Your task to perform on an android device: turn off notifications in google photos Image 0: 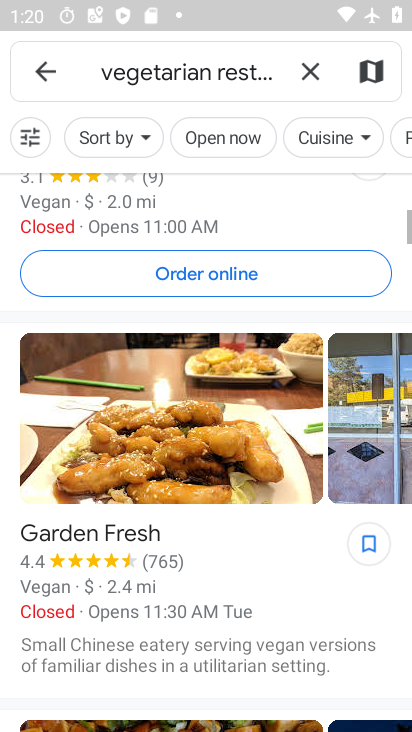
Step 0: press home button
Your task to perform on an android device: turn off notifications in google photos Image 1: 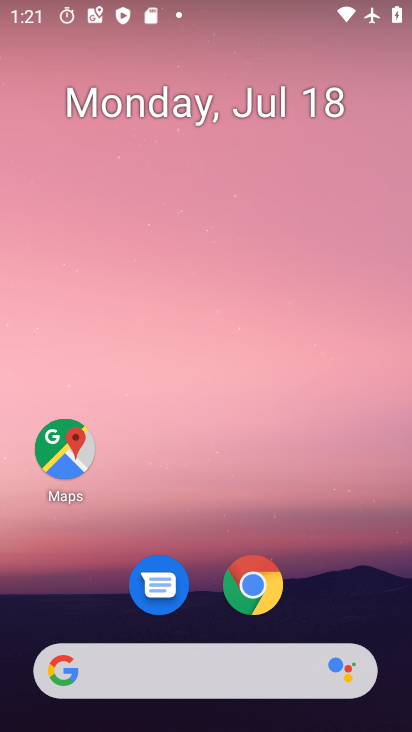
Step 1: drag from (137, 676) to (257, 176)
Your task to perform on an android device: turn off notifications in google photos Image 2: 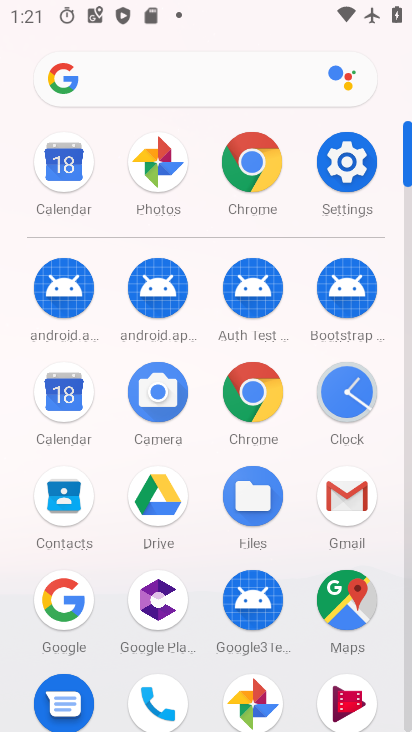
Step 2: click (161, 163)
Your task to perform on an android device: turn off notifications in google photos Image 3: 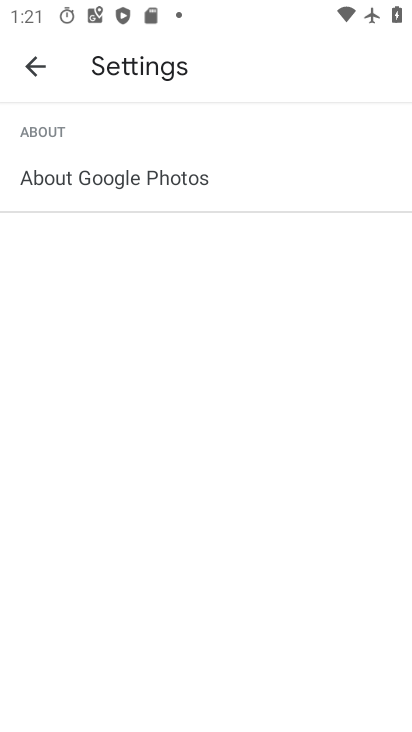
Step 3: click (34, 65)
Your task to perform on an android device: turn off notifications in google photos Image 4: 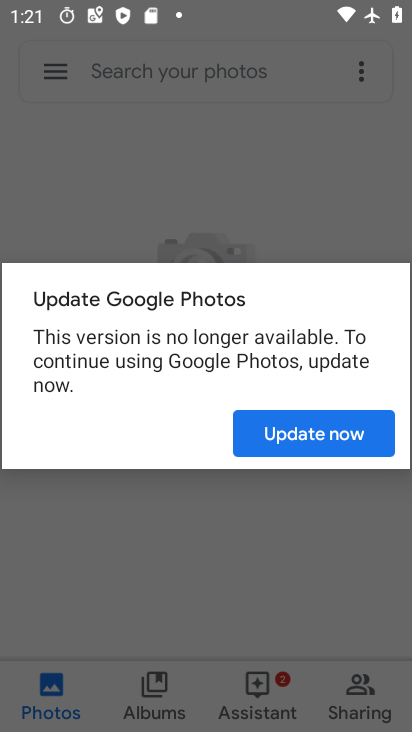
Step 4: click (289, 435)
Your task to perform on an android device: turn off notifications in google photos Image 5: 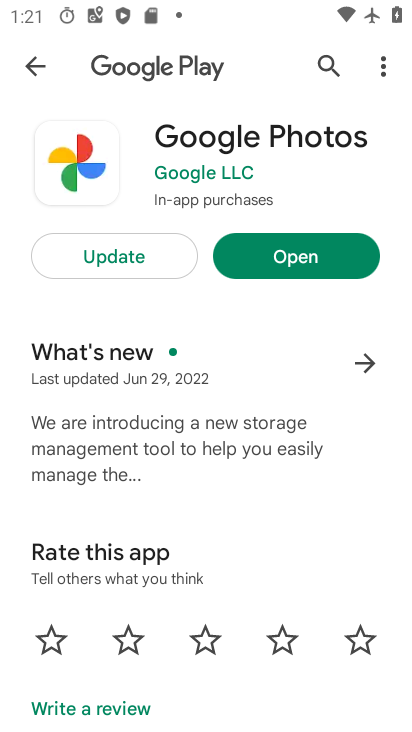
Step 5: click (320, 257)
Your task to perform on an android device: turn off notifications in google photos Image 6: 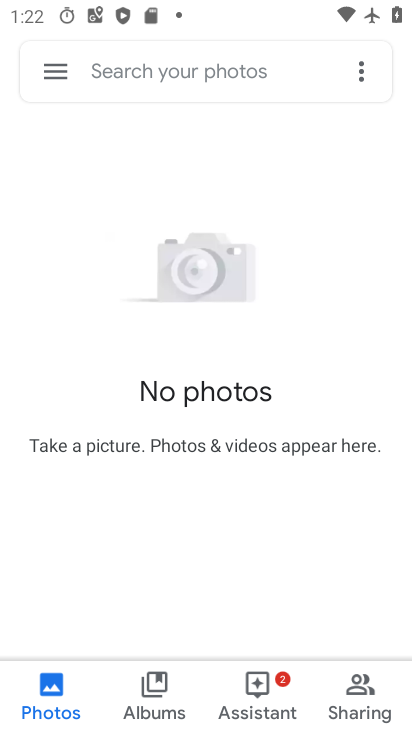
Step 6: click (51, 69)
Your task to perform on an android device: turn off notifications in google photos Image 7: 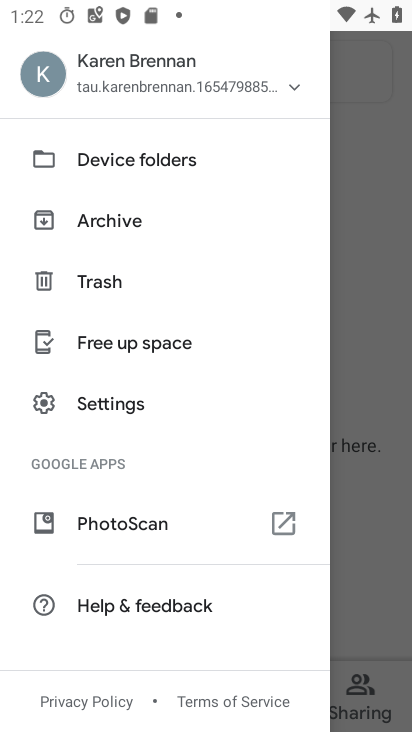
Step 7: click (128, 403)
Your task to perform on an android device: turn off notifications in google photos Image 8: 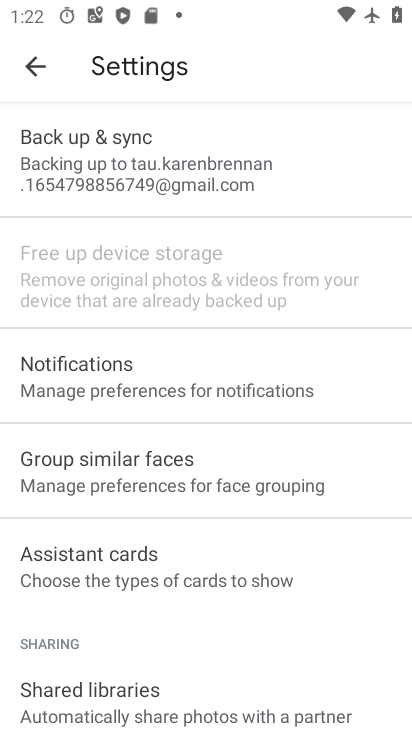
Step 8: click (153, 378)
Your task to perform on an android device: turn off notifications in google photos Image 9: 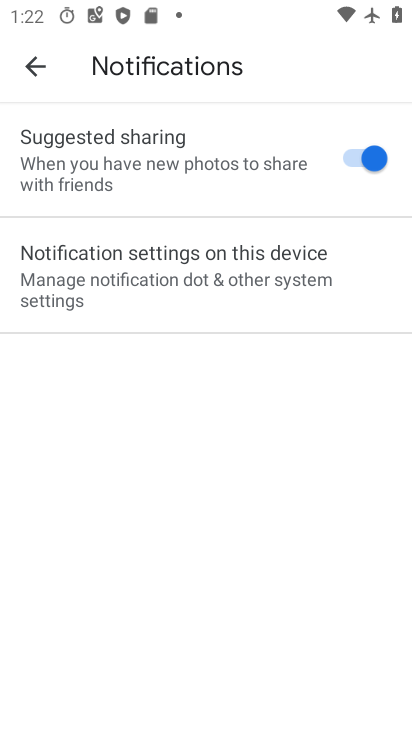
Step 9: click (215, 315)
Your task to perform on an android device: turn off notifications in google photos Image 10: 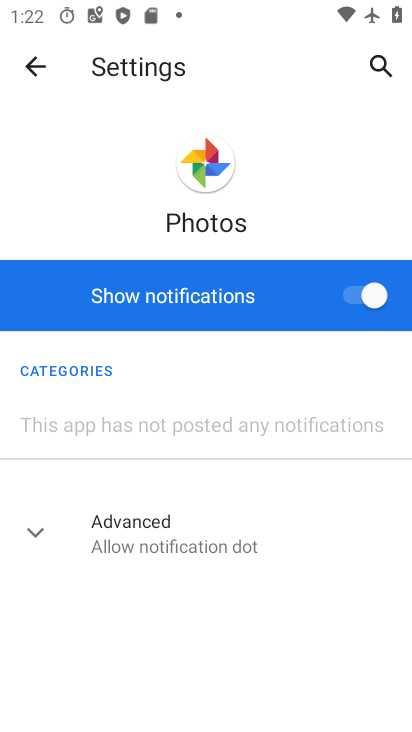
Step 10: click (355, 293)
Your task to perform on an android device: turn off notifications in google photos Image 11: 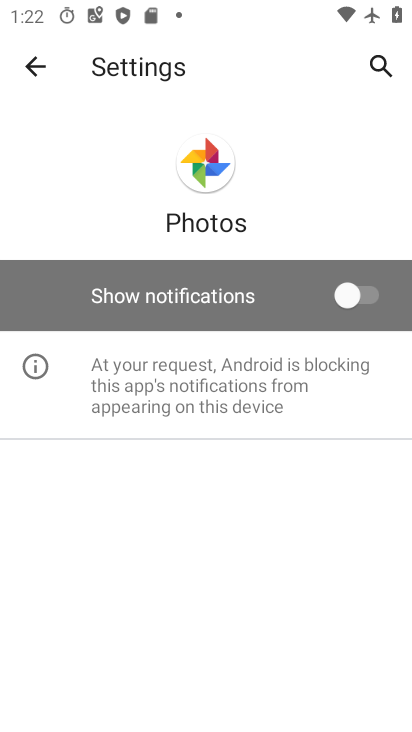
Step 11: task complete